Your task to perform on an android device: delete location history Image 0: 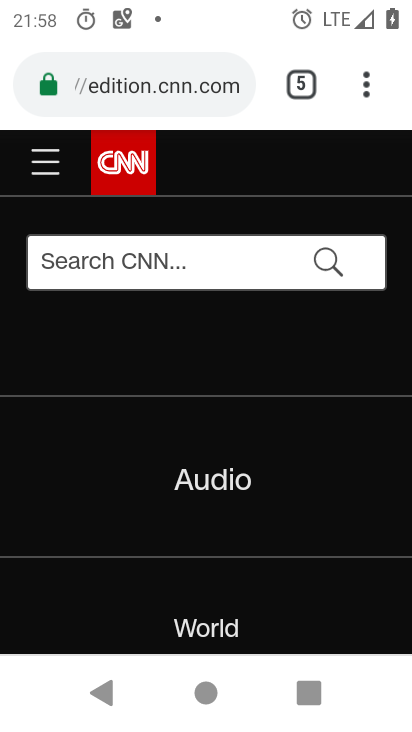
Step 0: drag from (263, 584) to (322, 116)
Your task to perform on an android device: delete location history Image 1: 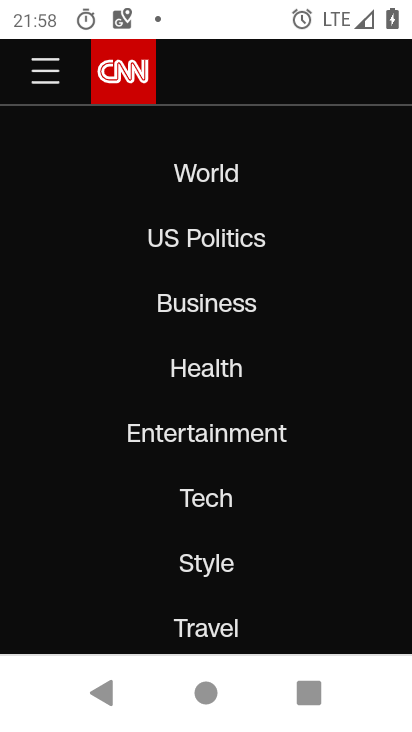
Step 1: drag from (258, 546) to (332, 128)
Your task to perform on an android device: delete location history Image 2: 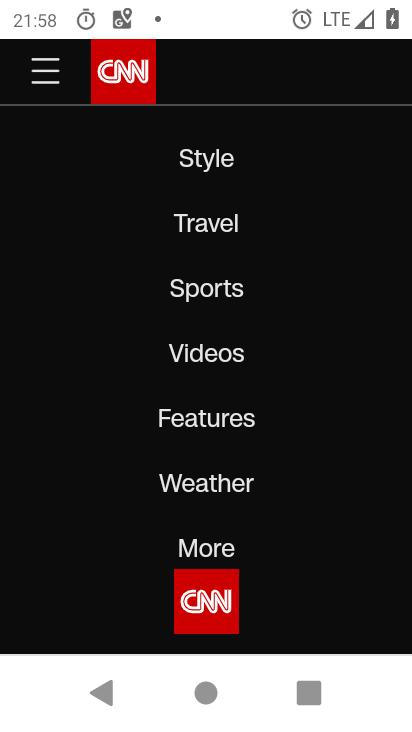
Step 2: press home button
Your task to perform on an android device: delete location history Image 3: 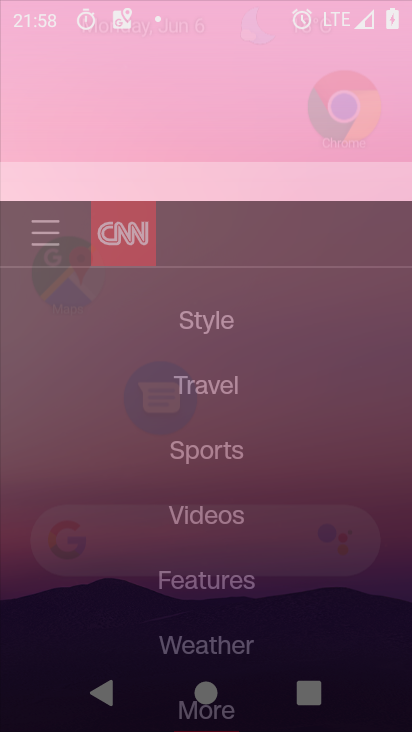
Step 3: drag from (250, 528) to (331, 55)
Your task to perform on an android device: delete location history Image 4: 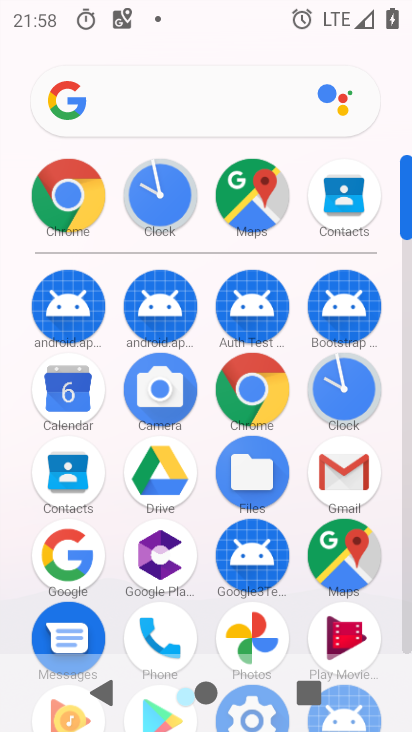
Step 4: drag from (200, 525) to (229, 248)
Your task to perform on an android device: delete location history Image 5: 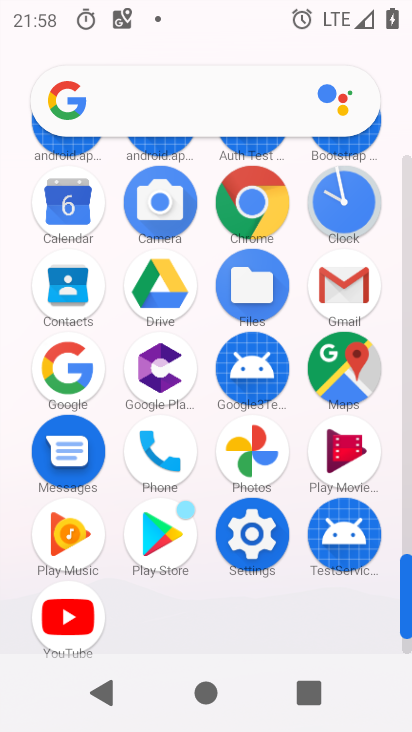
Step 5: click (255, 546)
Your task to perform on an android device: delete location history Image 6: 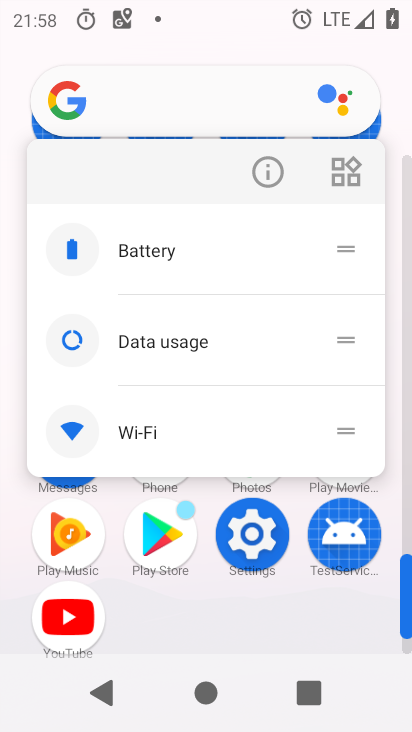
Step 6: click (282, 173)
Your task to perform on an android device: delete location history Image 7: 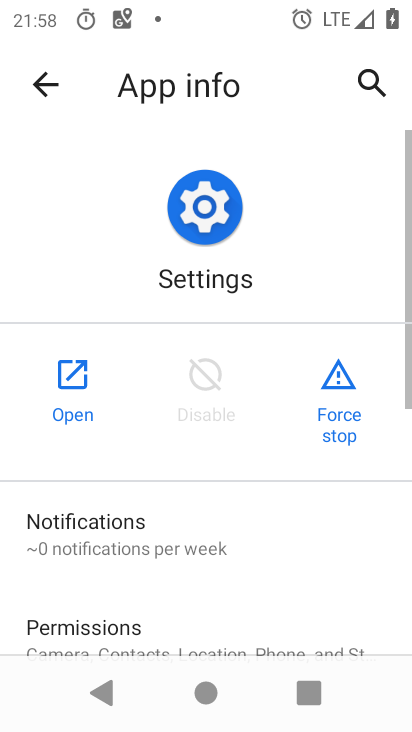
Step 7: click (78, 358)
Your task to perform on an android device: delete location history Image 8: 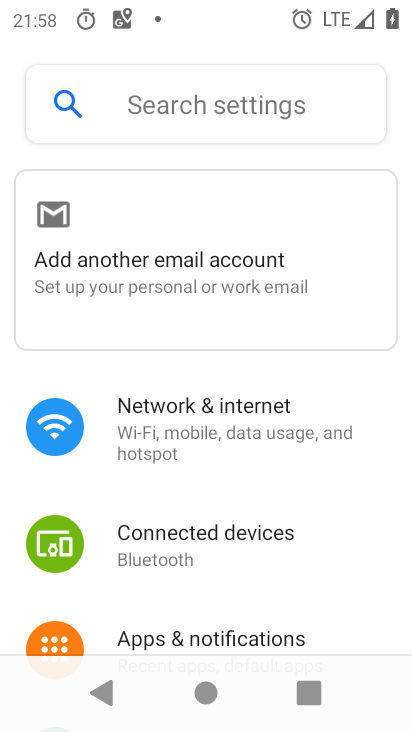
Step 8: drag from (236, 562) to (317, 13)
Your task to perform on an android device: delete location history Image 9: 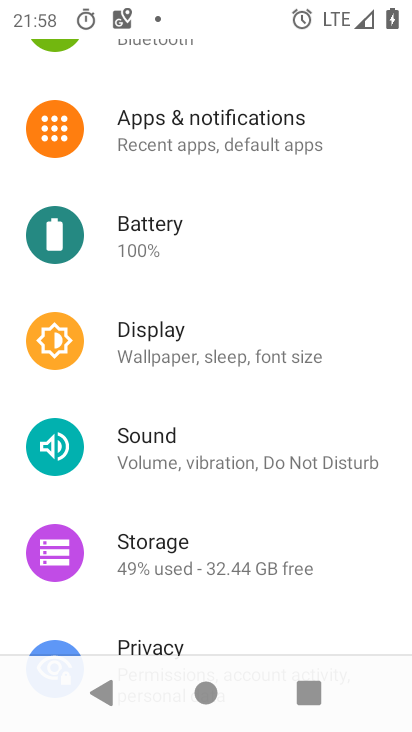
Step 9: drag from (211, 496) to (291, 10)
Your task to perform on an android device: delete location history Image 10: 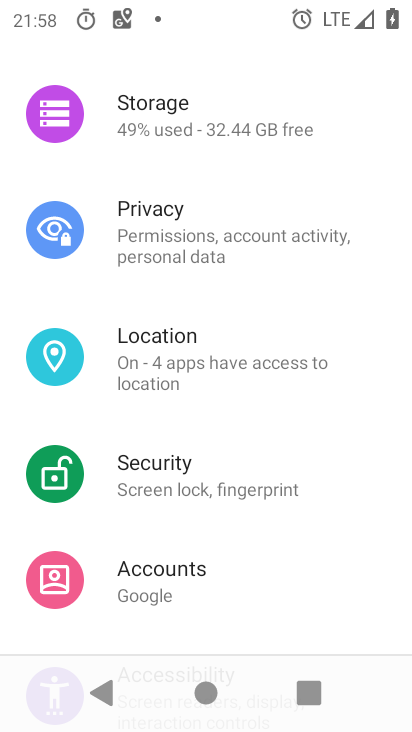
Step 10: click (185, 343)
Your task to perform on an android device: delete location history Image 11: 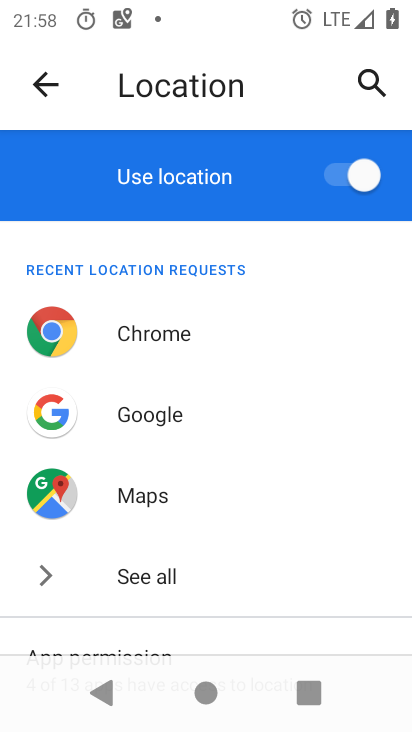
Step 11: drag from (252, 575) to (372, 113)
Your task to perform on an android device: delete location history Image 12: 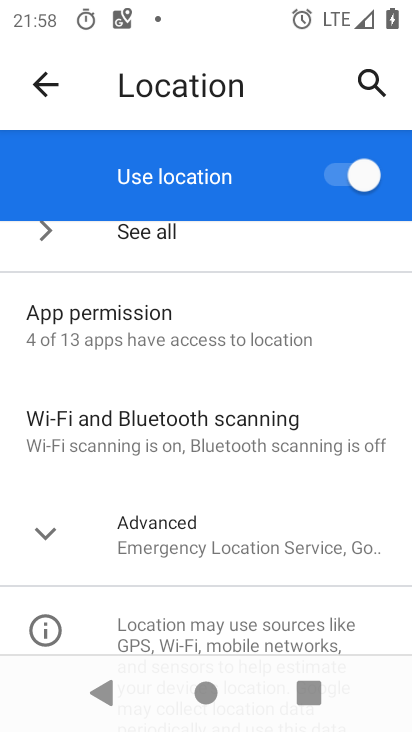
Step 12: click (158, 527)
Your task to perform on an android device: delete location history Image 13: 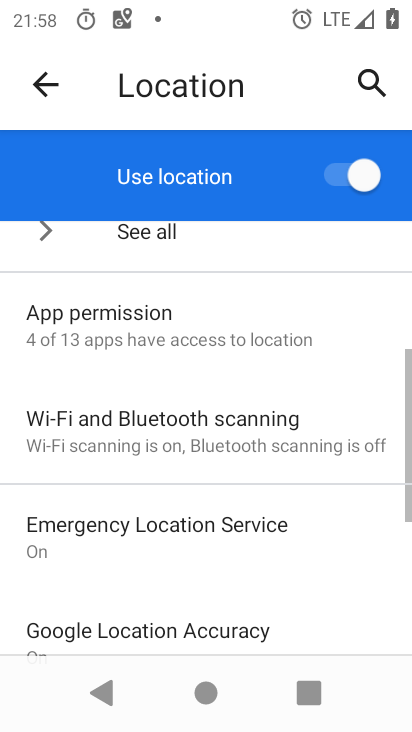
Step 13: drag from (205, 469) to (346, 76)
Your task to perform on an android device: delete location history Image 14: 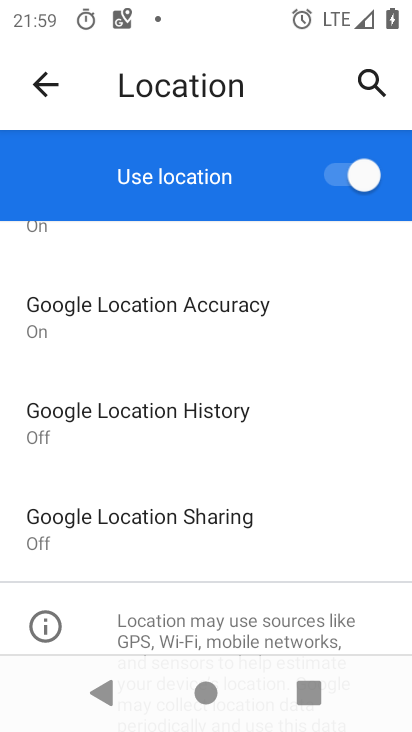
Step 14: drag from (151, 494) to (226, 340)
Your task to perform on an android device: delete location history Image 15: 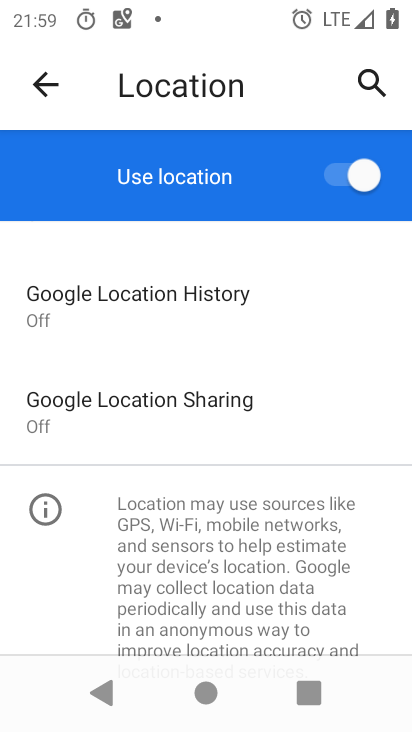
Step 15: click (198, 277)
Your task to perform on an android device: delete location history Image 16: 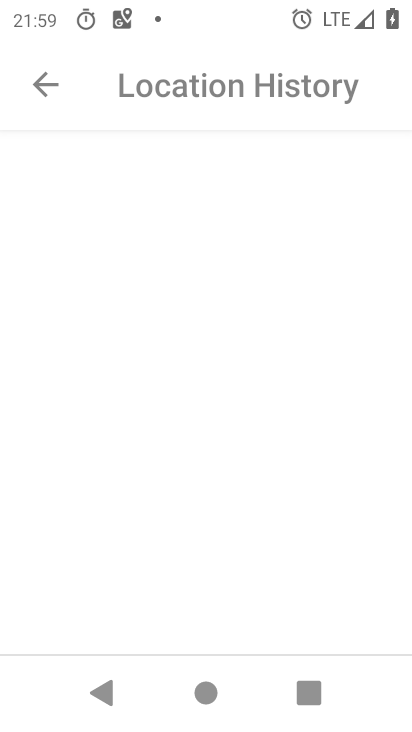
Step 16: drag from (233, 521) to (381, 90)
Your task to perform on an android device: delete location history Image 17: 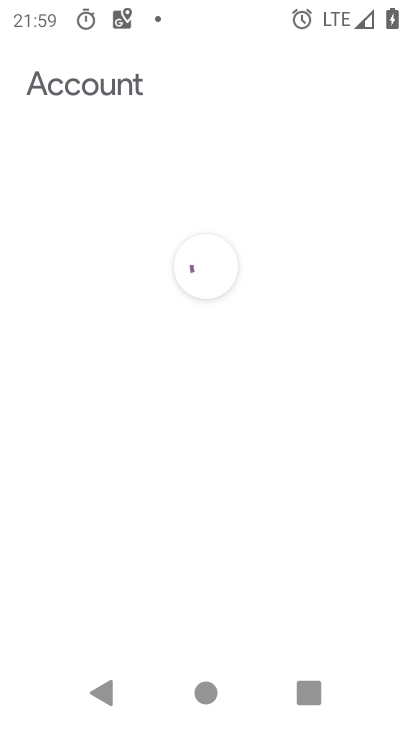
Step 17: drag from (213, 446) to (298, 110)
Your task to perform on an android device: delete location history Image 18: 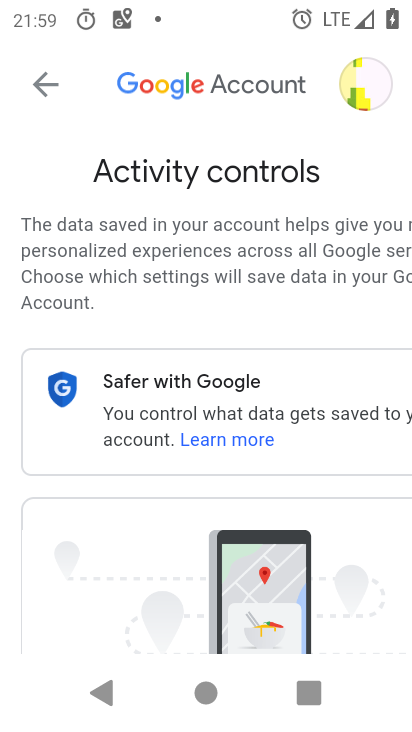
Step 18: drag from (247, 485) to (381, 80)
Your task to perform on an android device: delete location history Image 19: 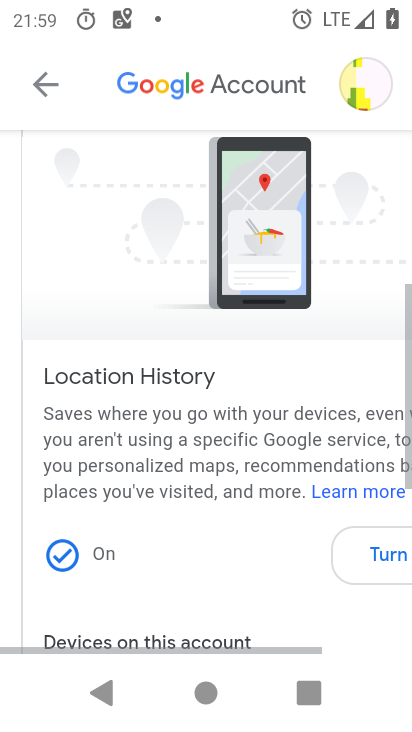
Step 19: drag from (399, 128) to (408, 52)
Your task to perform on an android device: delete location history Image 20: 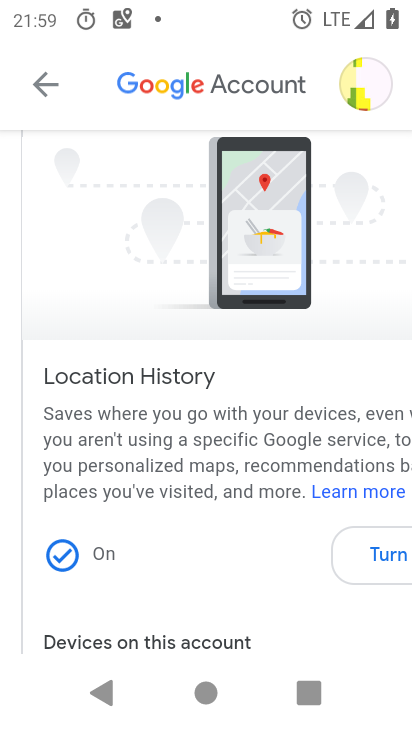
Step 20: drag from (177, 605) to (299, 10)
Your task to perform on an android device: delete location history Image 21: 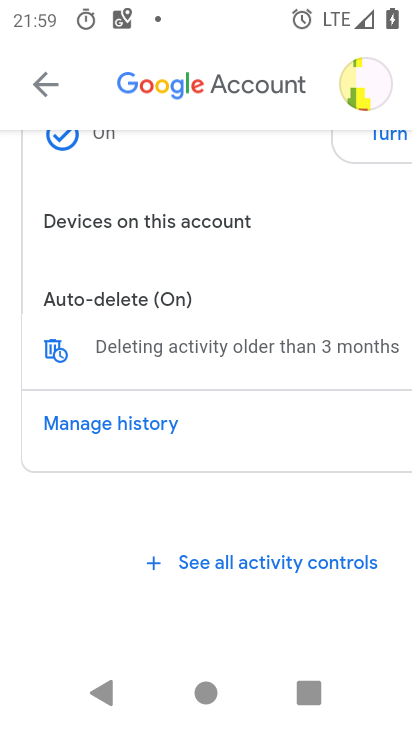
Step 21: click (48, 345)
Your task to perform on an android device: delete location history Image 22: 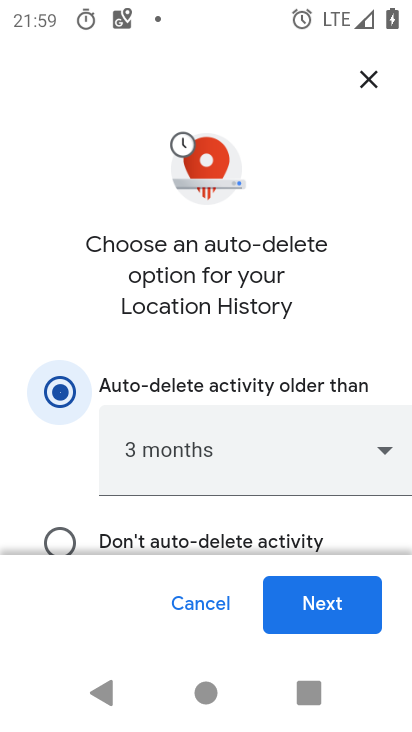
Step 22: drag from (241, 513) to (316, 62)
Your task to perform on an android device: delete location history Image 23: 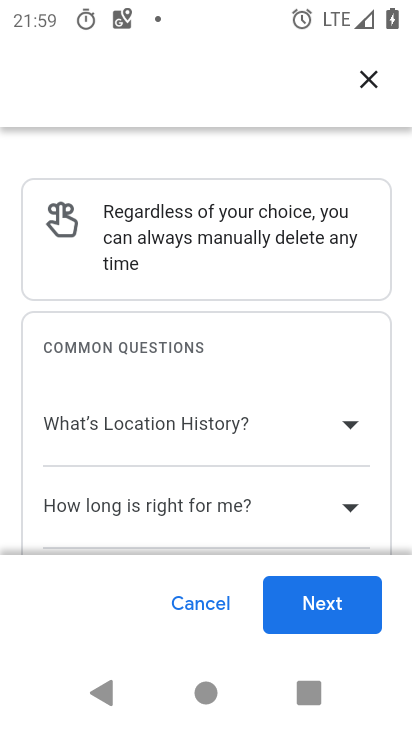
Step 23: click (327, 595)
Your task to perform on an android device: delete location history Image 24: 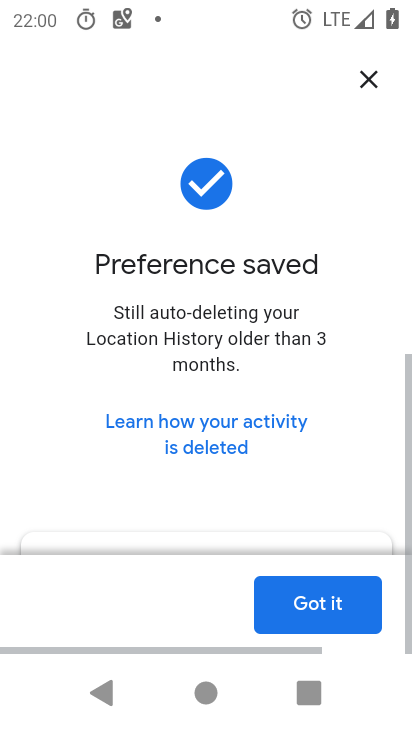
Step 24: click (346, 586)
Your task to perform on an android device: delete location history Image 25: 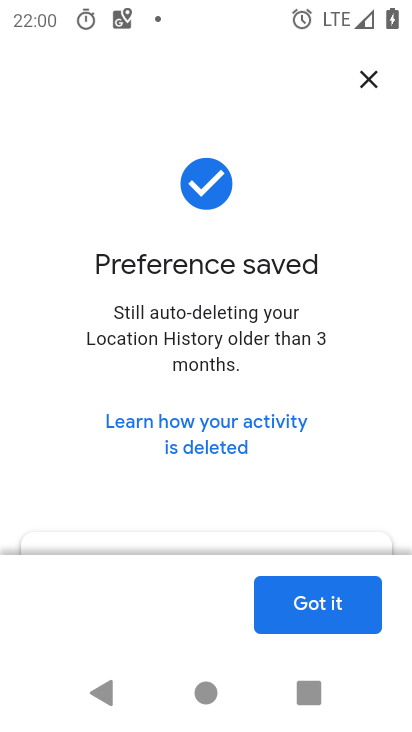
Step 25: click (345, 587)
Your task to perform on an android device: delete location history Image 26: 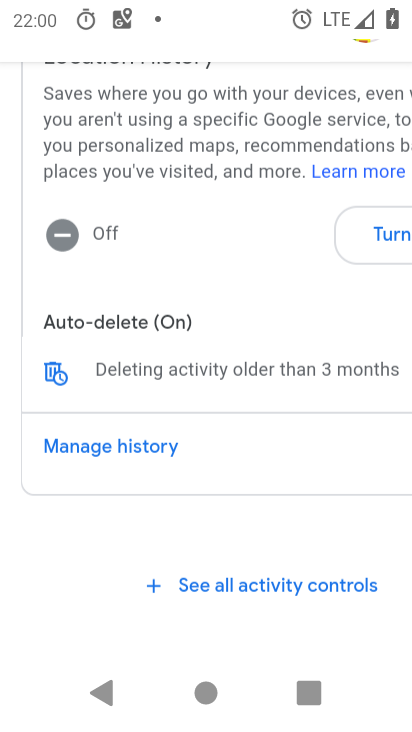
Step 26: task complete